Your task to perform on an android device: change the clock display to show seconds Image 0: 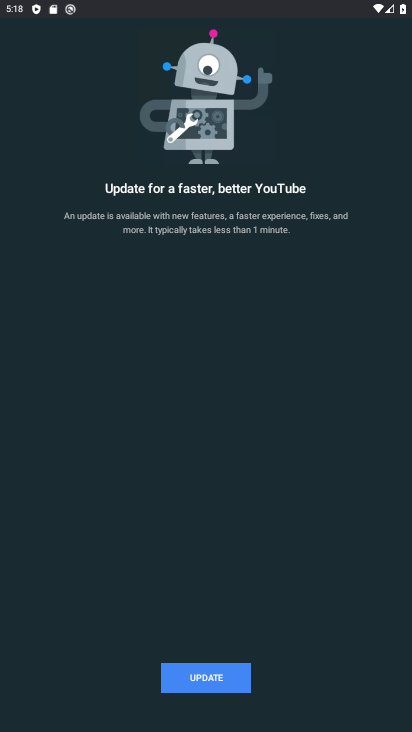
Step 0: press home button
Your task to perform on an android device: change the clock display to show seconds Image 1: 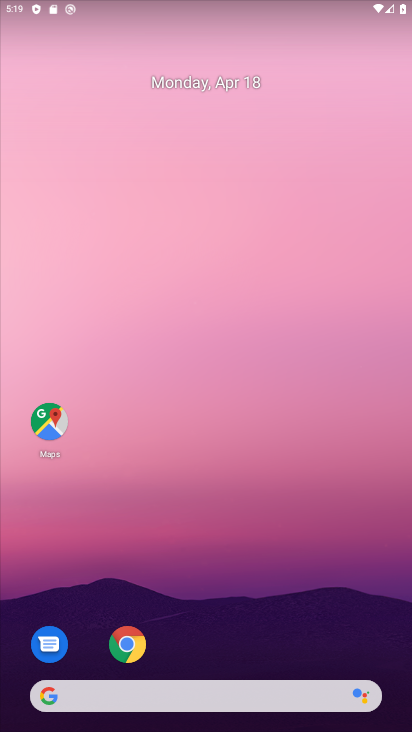
Step 1: drag from (228, 626) to (257, 159)
Your task to perform on an android device: change the clock display to show seconds Image 2: 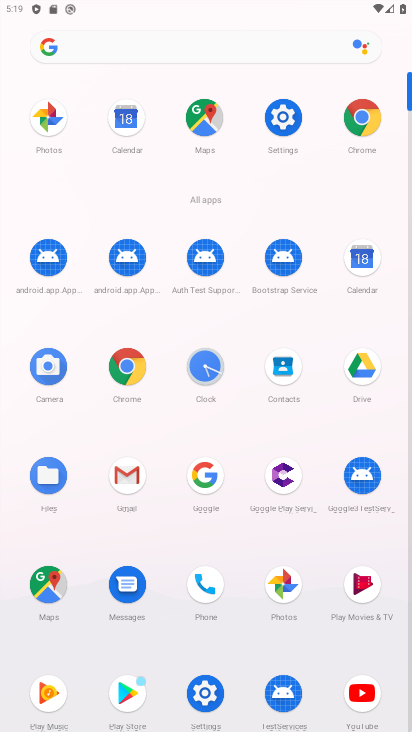
Step 2: click (202, 362)
Your task to perform on an android device: change the clock display to show seconds Image 3: 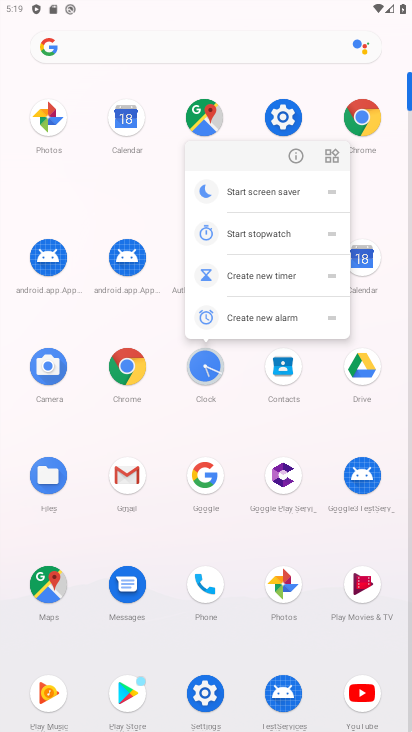
Step 3: click (200, 367)
Your task to perform on an android device: change the clock display to show seconds Image 4: 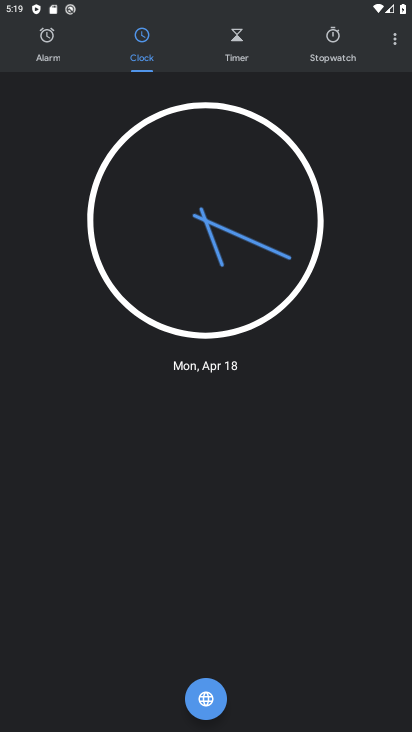
Step 4: click (389, 44)
Your task to perform on an android device: change the clock display to show seconds Image 5: 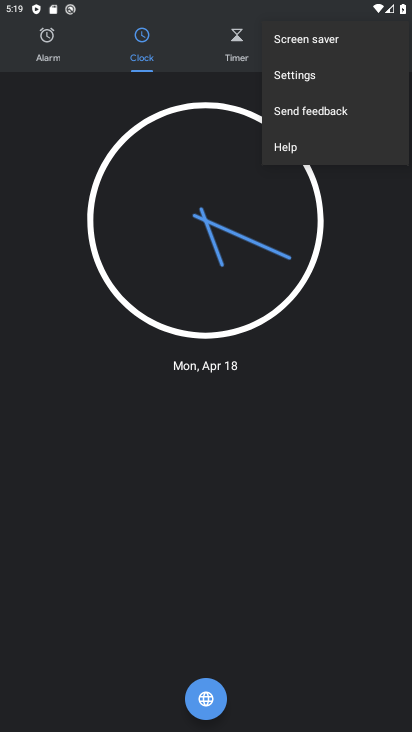
Step 5: click (336, 77)
Your task to perform on an android device: change the clock display to show seconds Image 6: 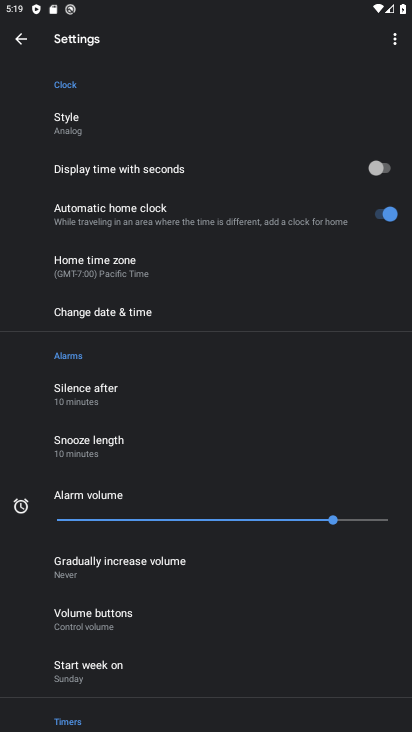
Step 6: click (380, 162)
Your task to perform on an android device: change the clock display to show seconds Image 7: 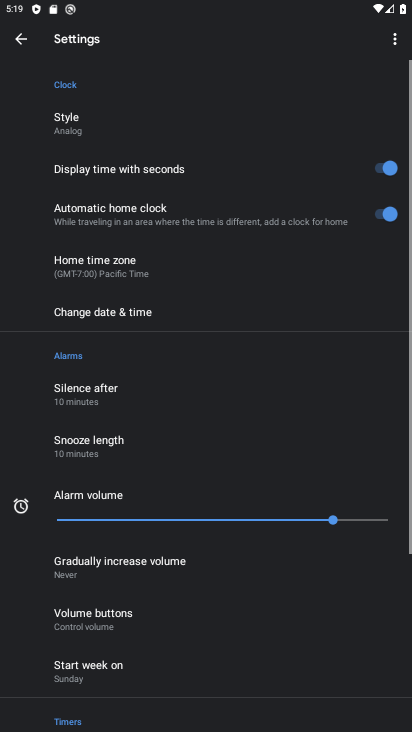
Step 7: task complete